Your task to perform on an android device: change keyboard looks Image 0: 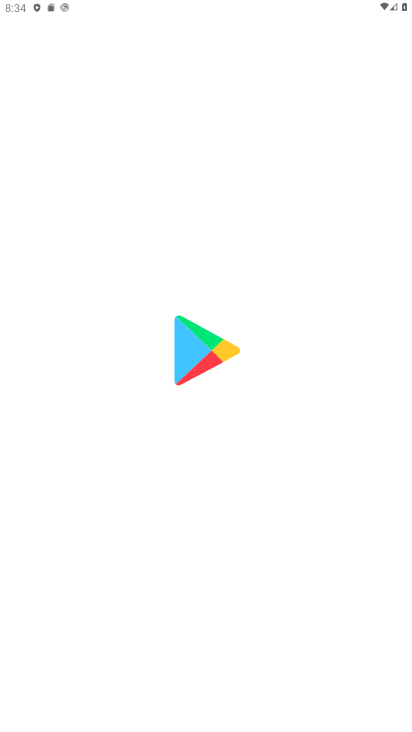
Step 0: drag from (353, 626) to (346, 305)
Your task to perform on an android device: change keyboard looks Image 1: 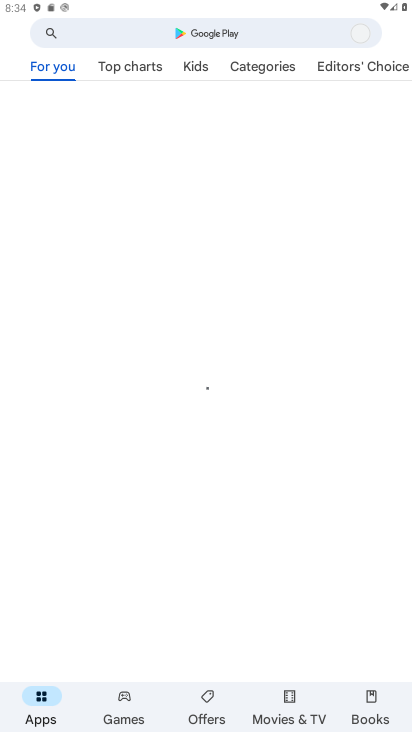
Step 1: press home button
Your task to perform on an android device: change keyboard looks Image 2: 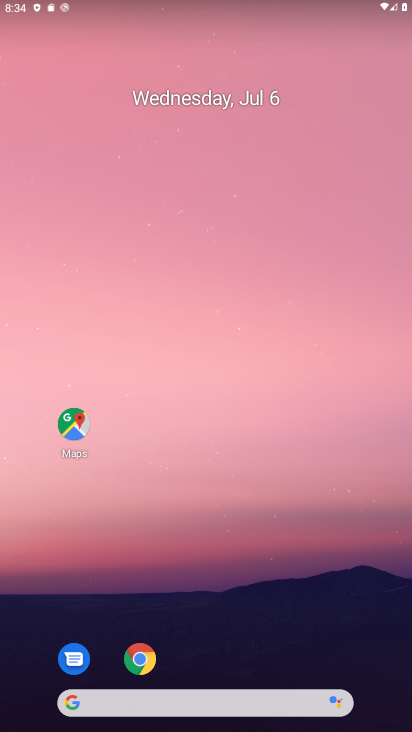
Step 2: drag from (351, 608) to (356, 137)
Your task to perform on an android device: change keyboard looks Image 3: 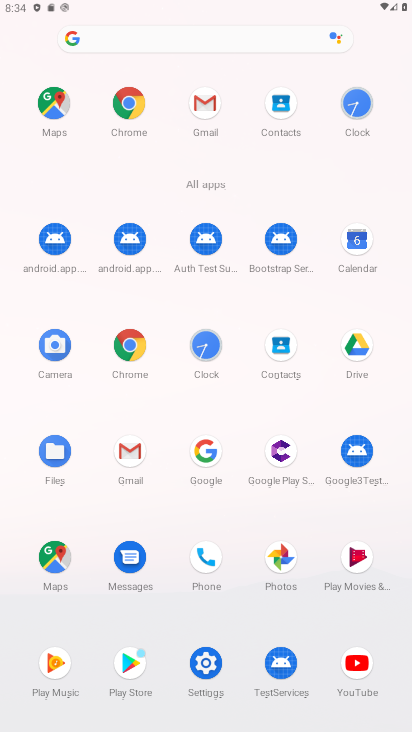
Step 3: click (211, 670)
Your task to perform on an android device: change keyboard looks Image 4: 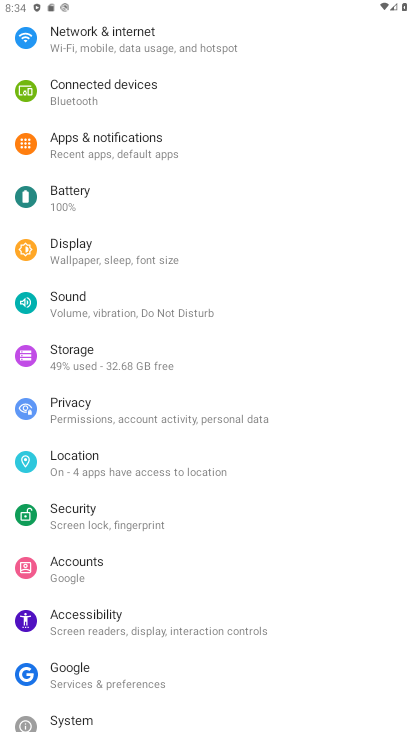
Step 4: drag from (319, 100) to (326, 187)
Your task to perform on an android device: change keyboard looks Image 5: 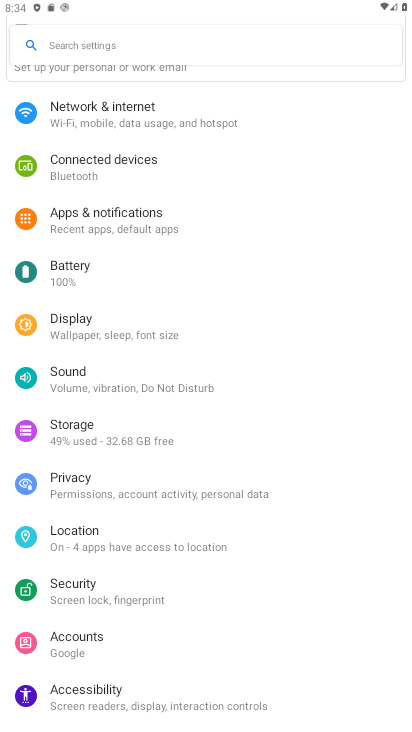
Step 5: drag from (318, 107) to (319, 234)
Your task to perform on an android device: change keyboard looks Image 6: 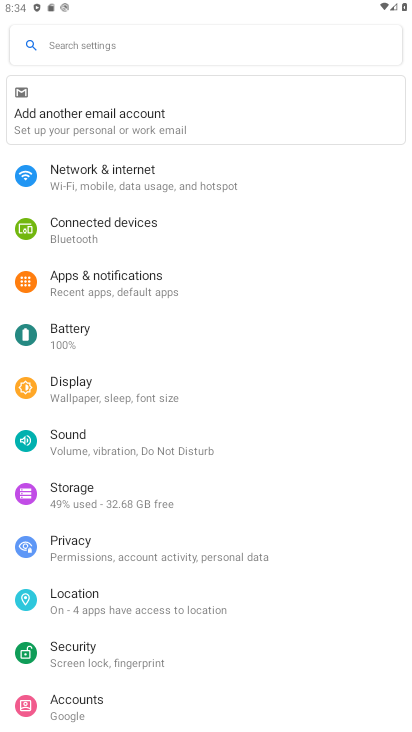
Step 6: drag from (323, 94) to (325, 275)
Your task to perform on an android device: change keyboard looks Image 7: 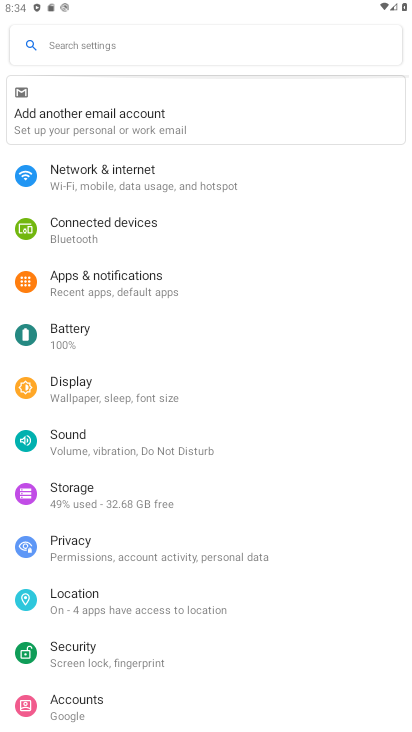
Step 7: drag from (322, 433) to (326, 292)
Your task to perform on an android device: change keyboard looks Image 8: 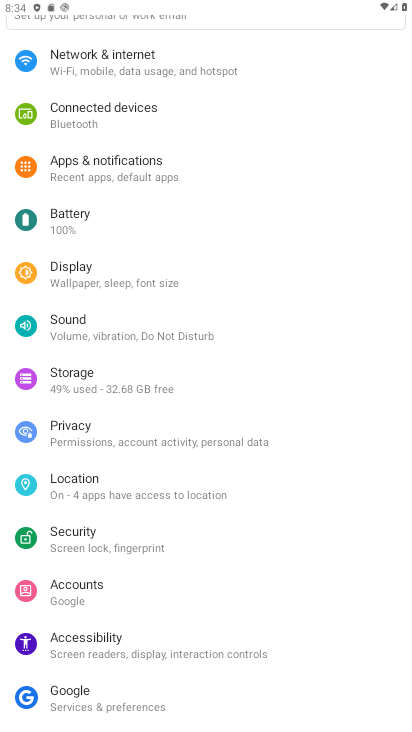
Step 8: drag from (336, 418) to (337, 285)
Your task to perform on an android device: change keyboard looks Image 9: 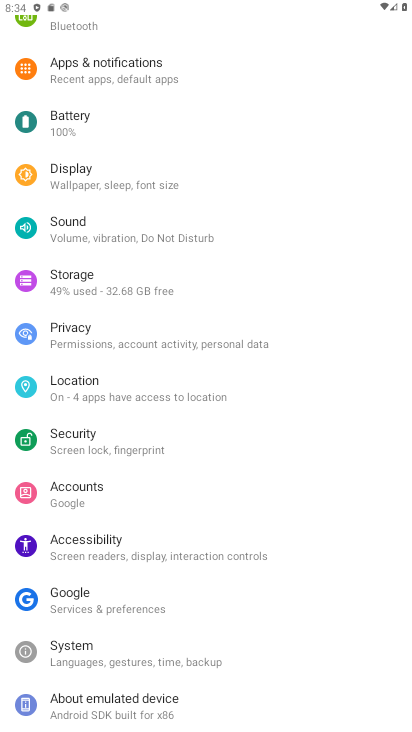
Step 9: drag from (327, 507) to (324, 361)
Your task to perform on an android device: change keyboard looks Image 10: 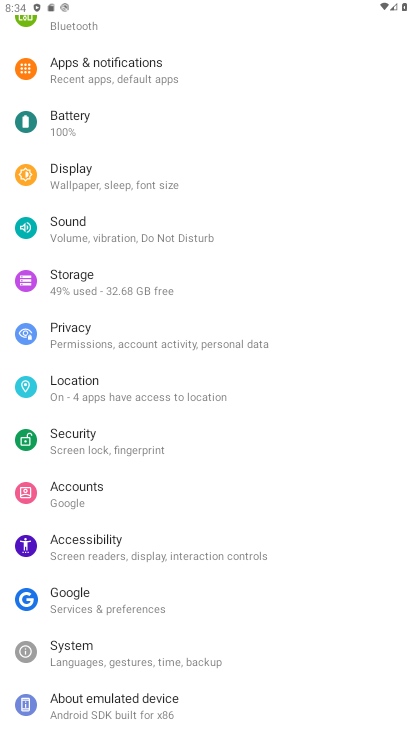
Step 10: drag from (350, 512) to (347, 397)
Your task to perform on an android device: change keyboard looks Image 11: 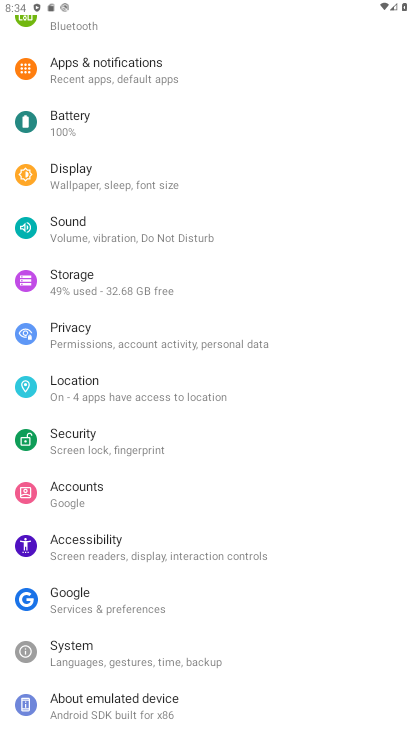
Step 11: click (233, 657)
Your task to perform on an android device: change keyboard looks Image 12: 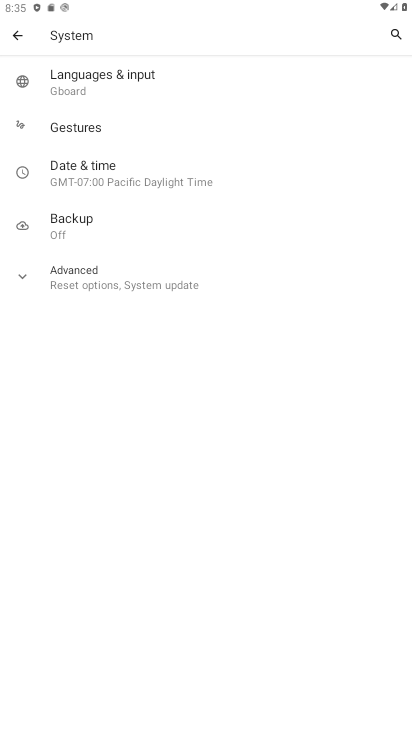
Step 12: click (172, 75)
Your task to perform on an android device: change keyboard looks Image 13: 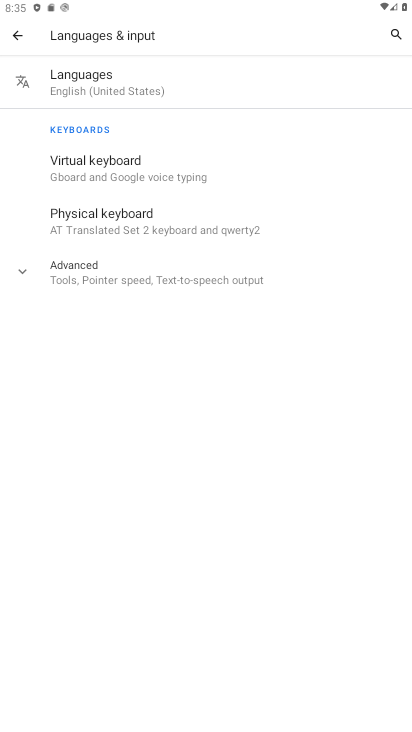
Step 13: click (184, 167)
Your task to perform on an android device: change keyboard looks Image 14: 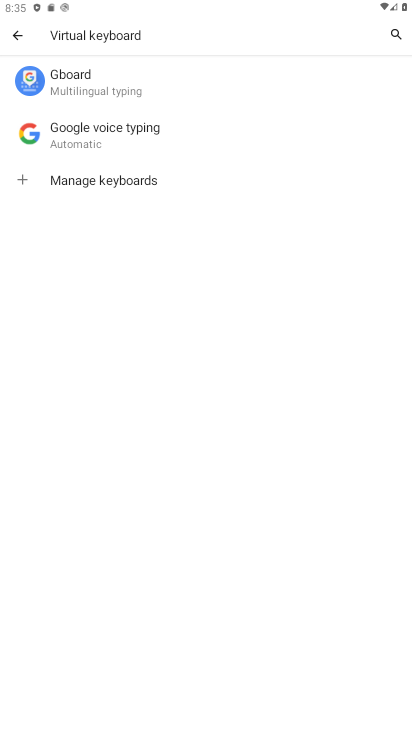
Step 14: click (100, 81)
Your task to perform on an android device: change keyboard looks Image 15: 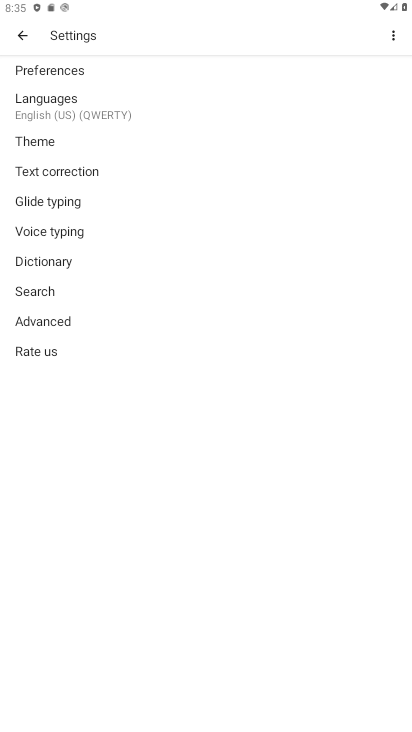
Step 15: click (58, 140)
Your task to perform on an android device: change keyboard looks Image 16: 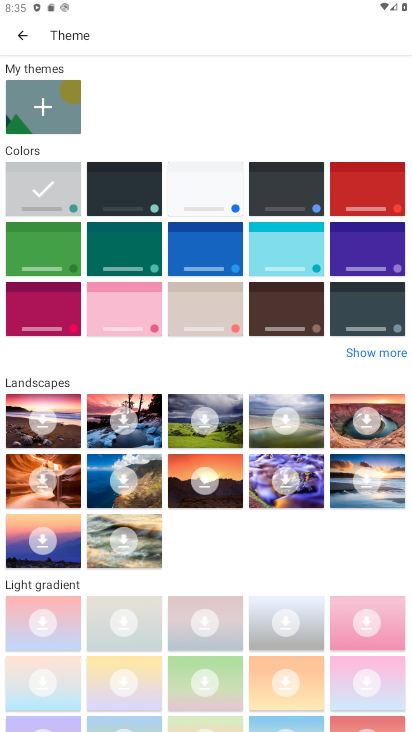
Step 16: click (121, 249)
Your task to perform on an android device: change keyboard looks Image 17: 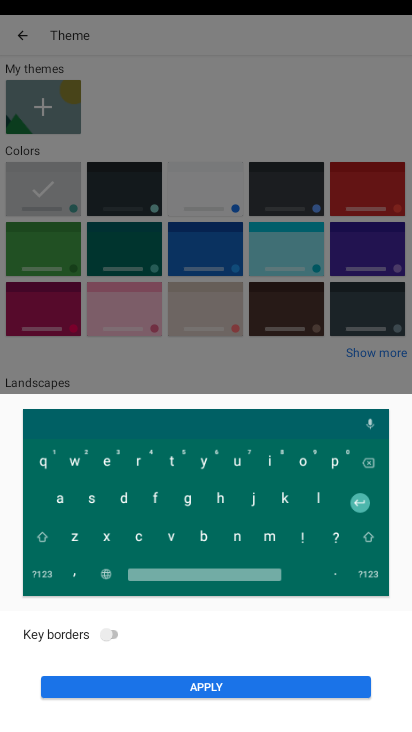
Step 17: click (248, 694)
Your task to perform on an android device: change keyboard looks Image 18: 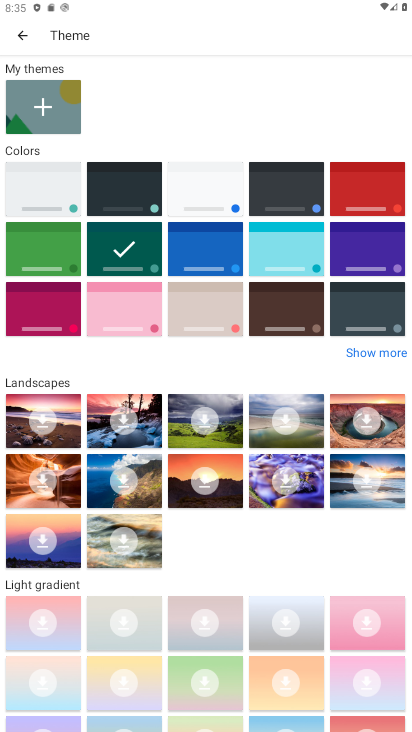
Step 18: task complete